Your task to perform on an android device: Go to ESPN.com Image 0: 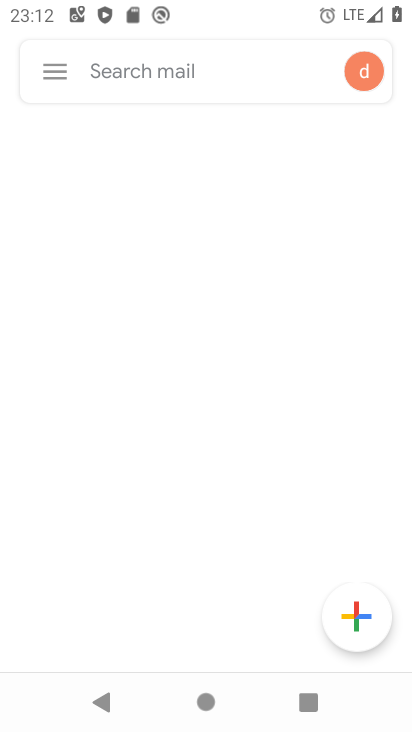
Step 0: press home button
Your task to perform on an android device: Go to ESPN.com Image 1: 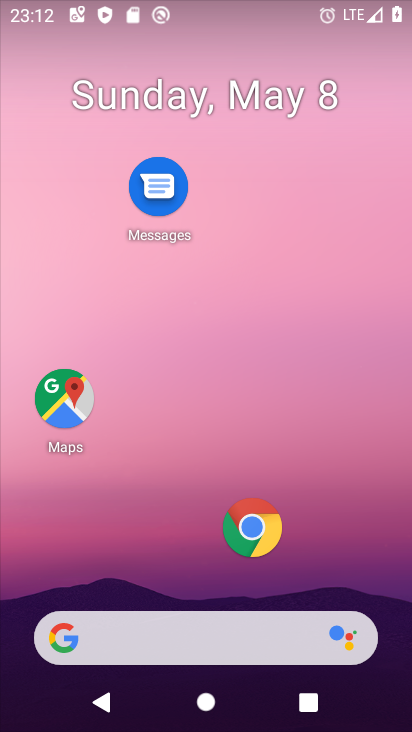
Step 1: drag from (161, 564) to (217, 75)
Your task to perform on an android device: Go to ESPN.com Image 2: 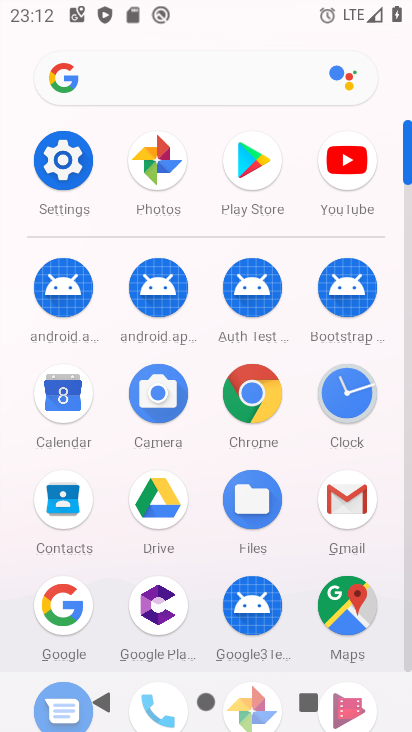
Step 2: click (63, 607)
Your task to perform on an android device: Go to ESPN.com Image 3: 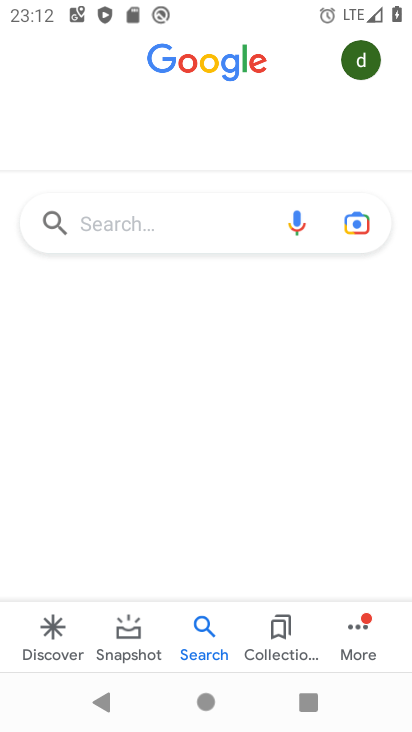
Step 3: click (140, 211)
Your task to perform on an android device: Go to ESPN.com Image 4: 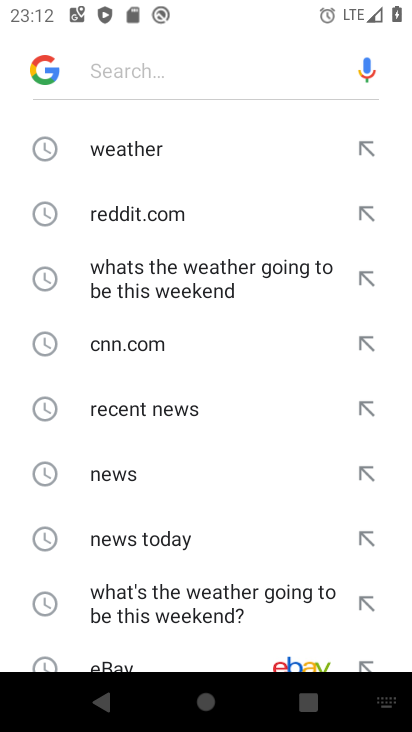
Step 4: drag from (209, 548) to (248, 124)
Your task to perform on an android device: Go to ESPN.com Image 5: 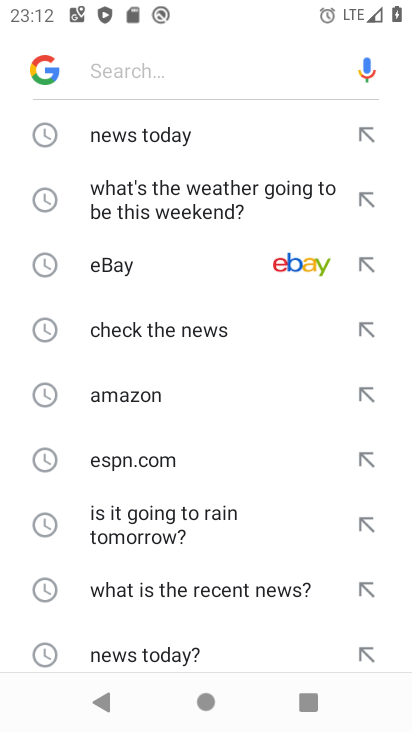
Step 5: click (134, 458)
Your task to perform on an android device: Go to ESPN.com Image 6: 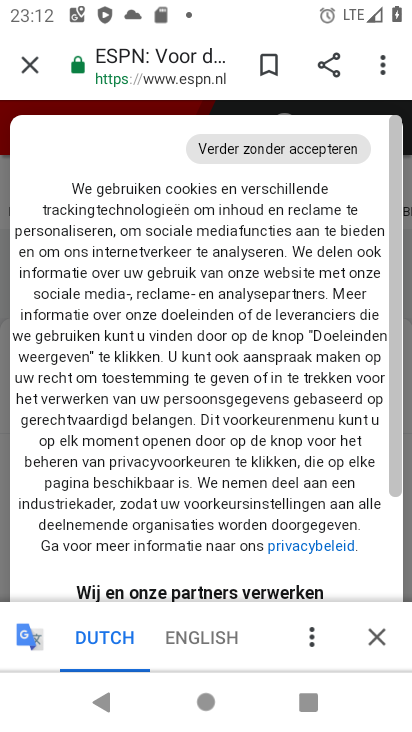
Step 6: task complete